Your task to perform on an android device: change timer sound Image 0: 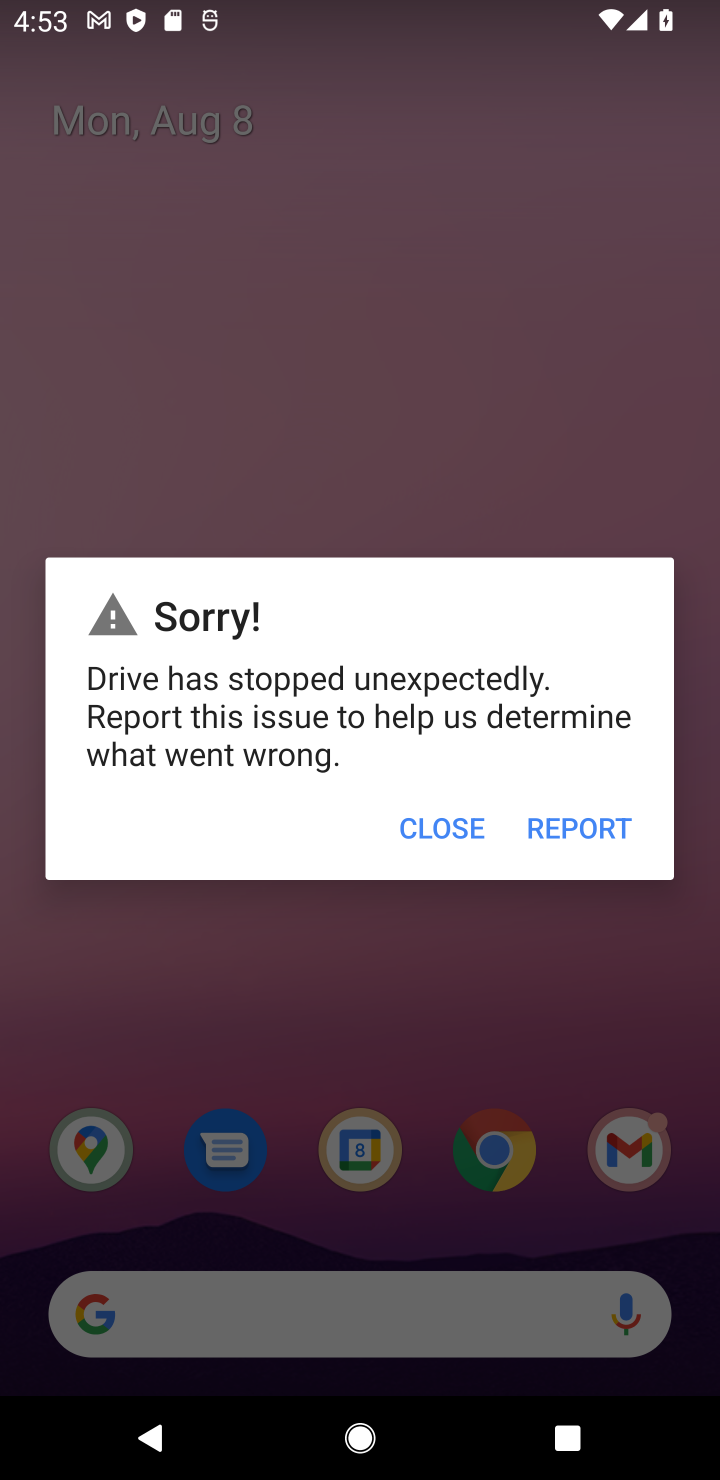
Step 0: click (436, 813)
Your task to perform on an android device: change timer sound Image 1: 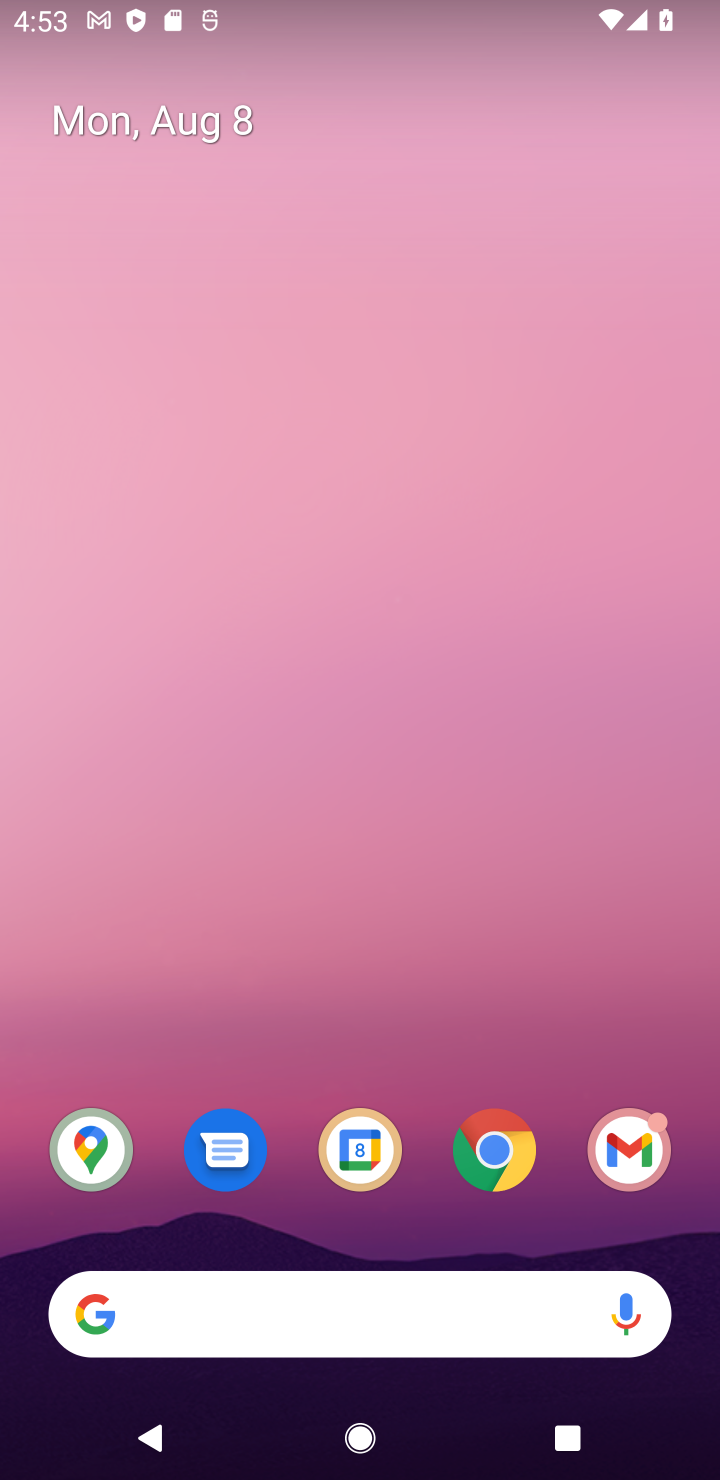
Step 1: drag from (424, 1247) to (450, 34)
Your task to perform on an android device: change timer sound Image 2: 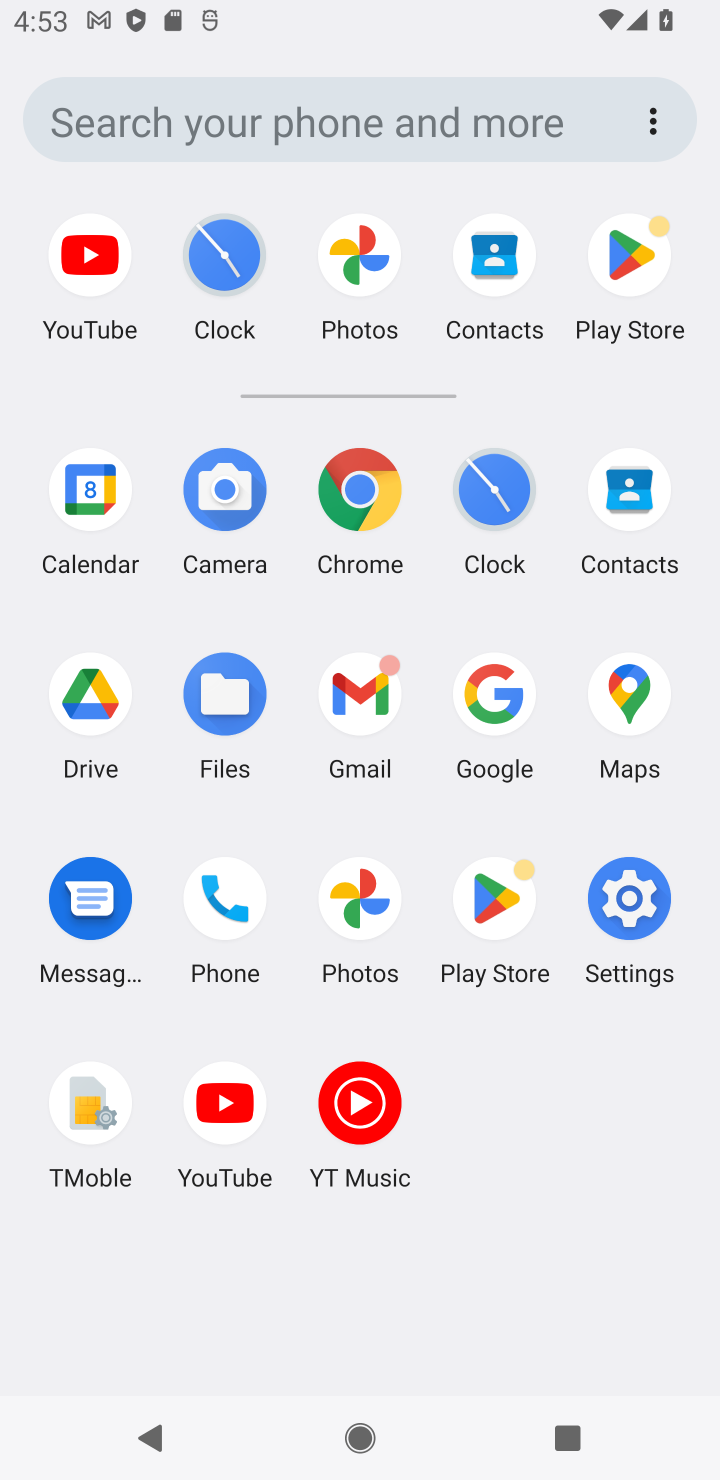
Step 2: click (611, 927)
Your task to perform on an android device: change timer sound Image 3: 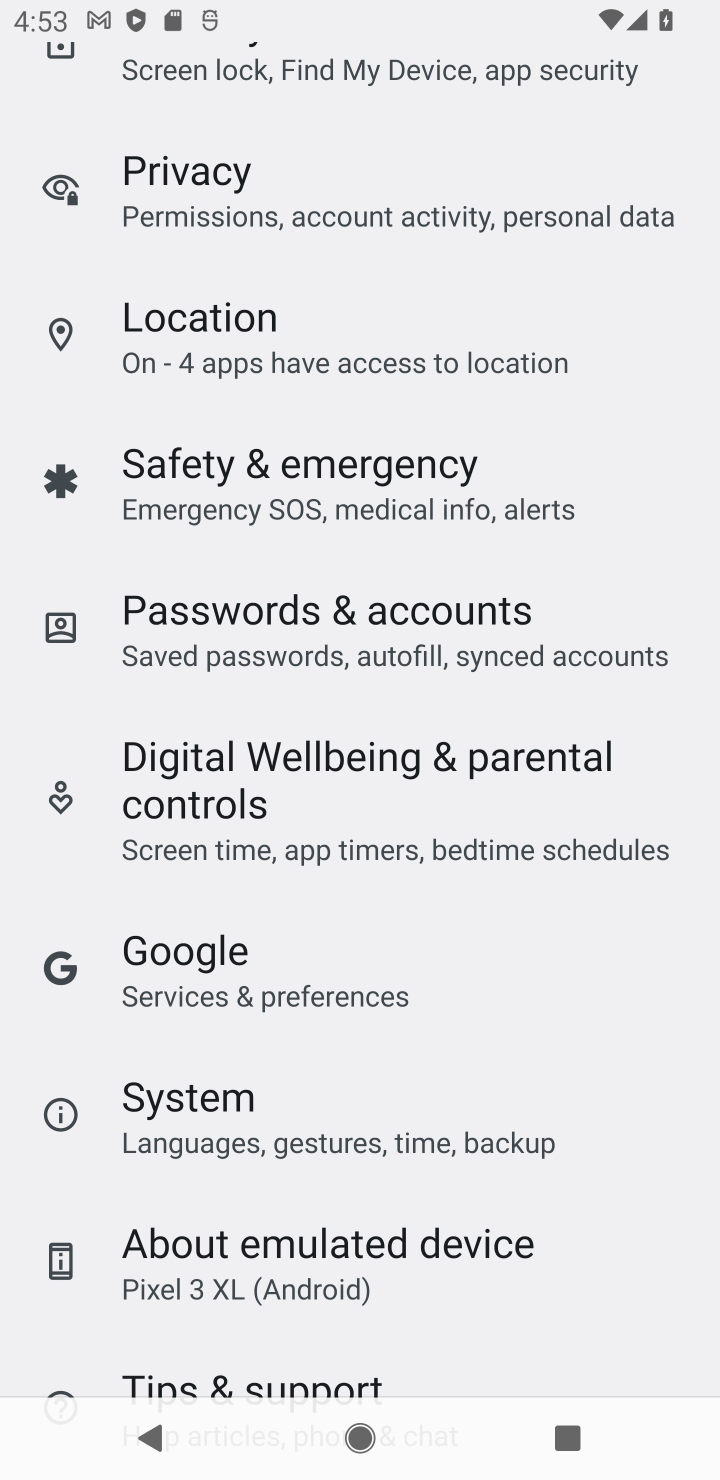
Step 3: drag from (384, 478) to (232, 1372)
Your task to perform on an android device: change timer sound Image 4: 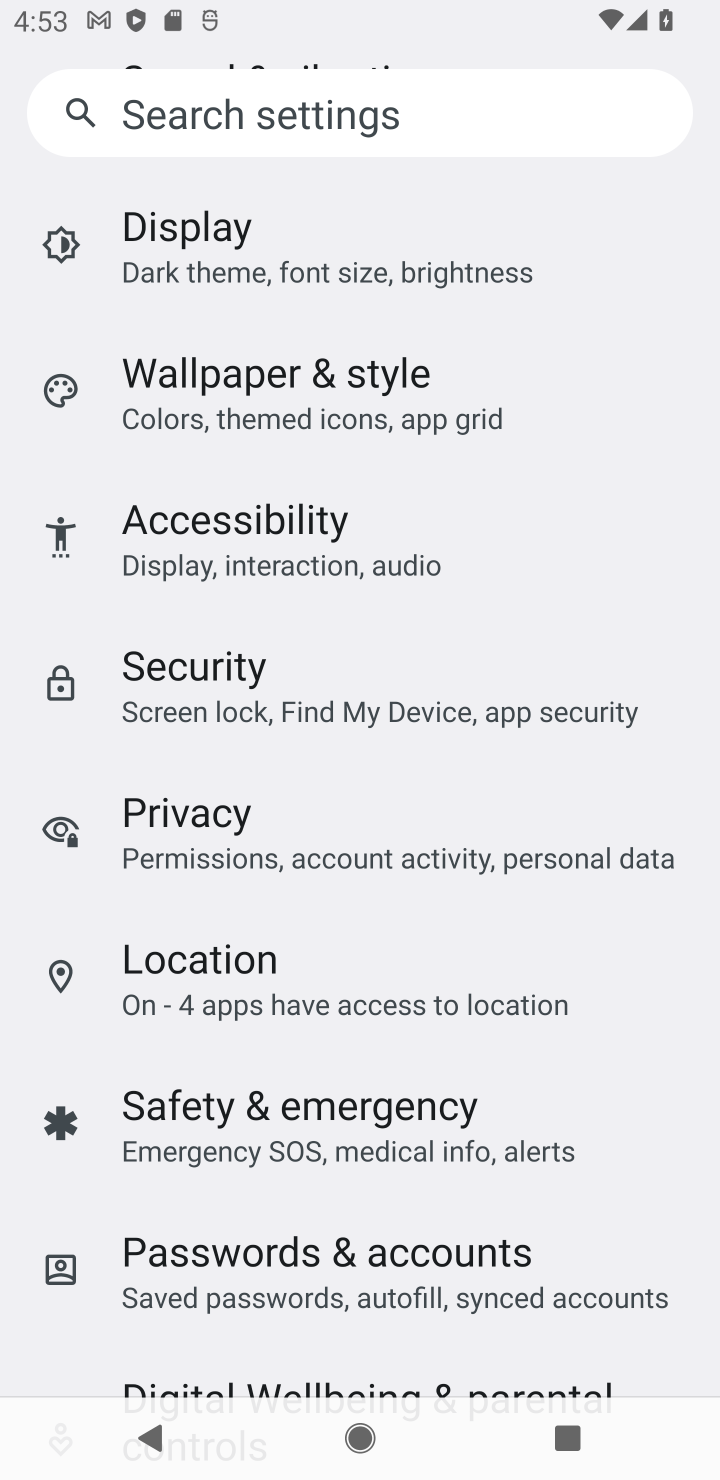
Step 4: drag from (333, 471) to (251, 868)
Your task to perform on an android device: change timer sound Image 5: 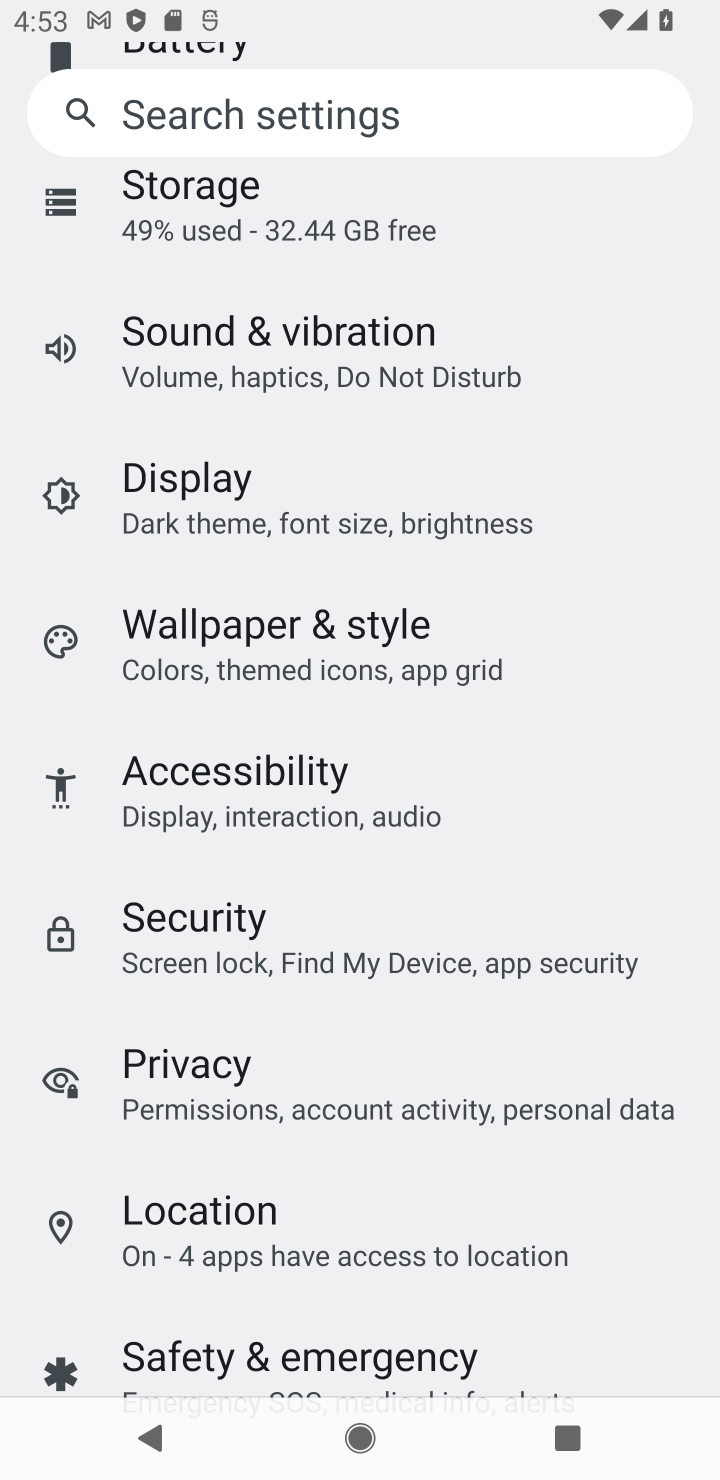
Step 5: click (355, 378)
Your task to perform on an android device: change timer sound Image 6: 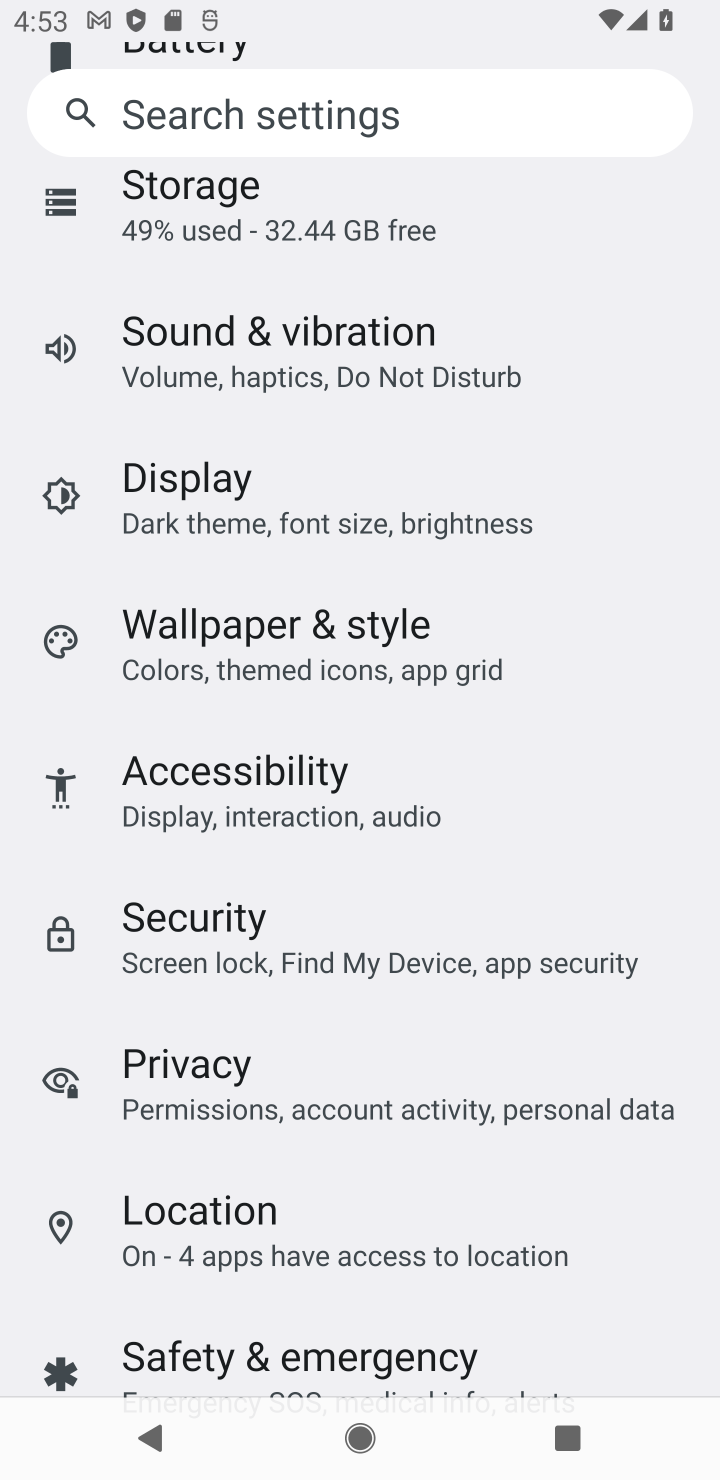
Step 6: task complete